Your task to perform on an android device: What's the weather going to be this weekend? Image 0: 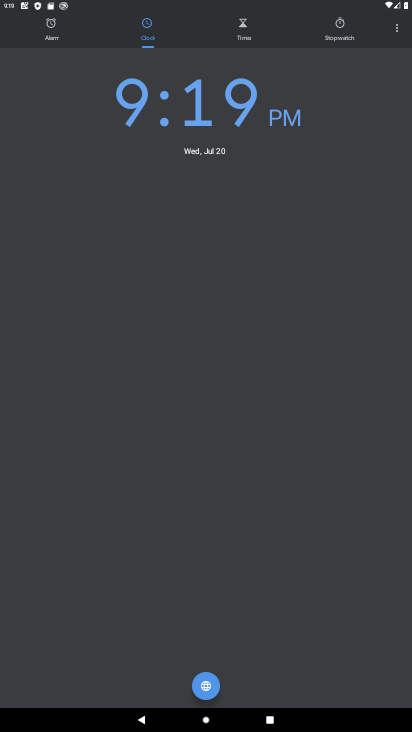
Step 0: task complete